Your task to perform on an android device: Go to wifi settings Image 0: 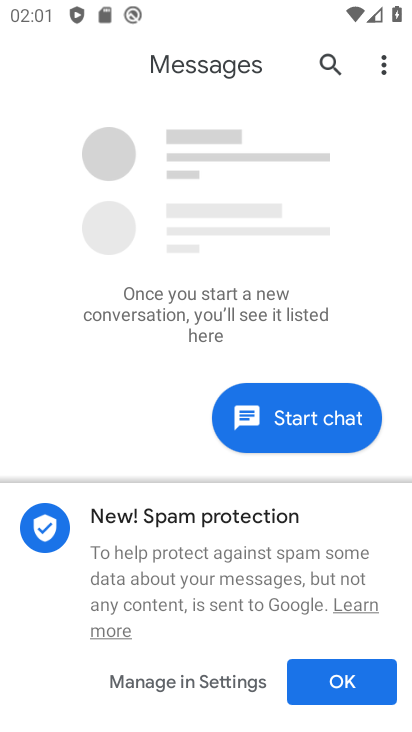
Step 0: press home button
Your task to perform on an android device: Go to wifi settings Image 1: 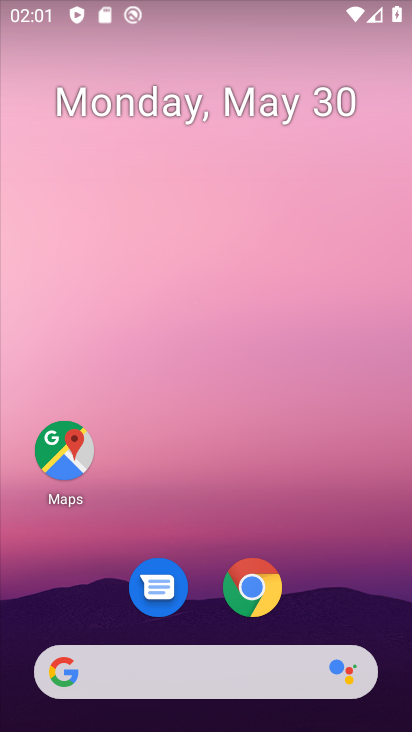
Step 1: drag from (130, 725) to (153, 59)
Your task to perform on an android device: Go to wifi settings Image 2: 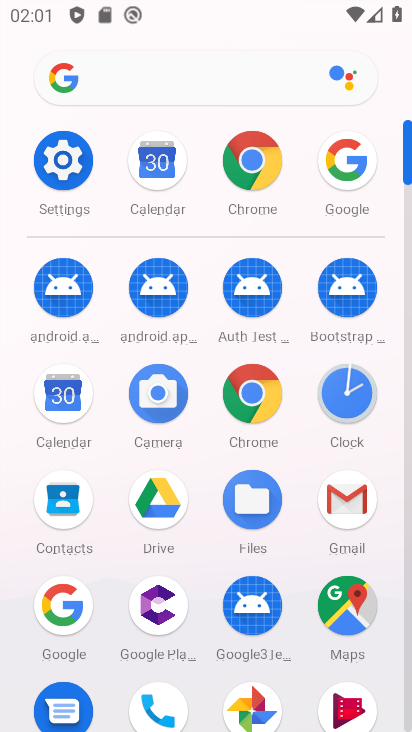
Step 2: click (54, 172)
Your task to perform on an android device: Go to wifi settings Image 3: 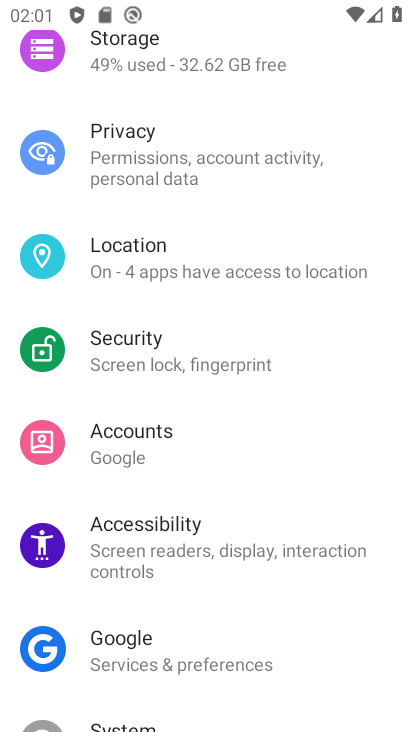
Step 3: drag from (206, 132) to (312, 660)
Your task to perform on an android device: Go to wifi settings Image 4: 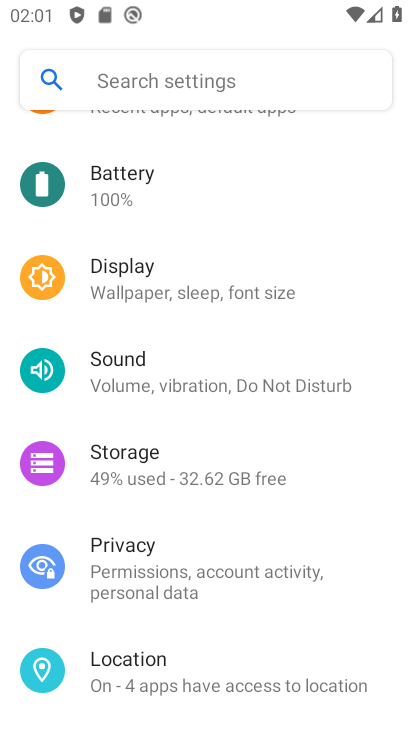
Step 4: drag from (239, 228) to (317, 609)
Your task to perform on an android device: Go to wifi settings Image 5: 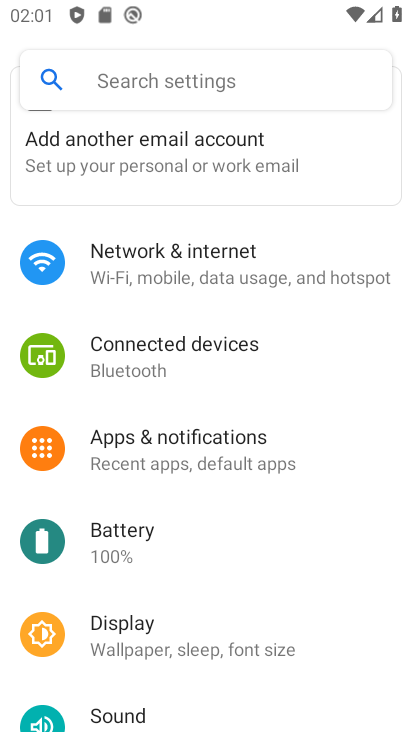
Step 5: click (232, 276)
Your task to perform on an android device: Go to wifi settings Image 6: 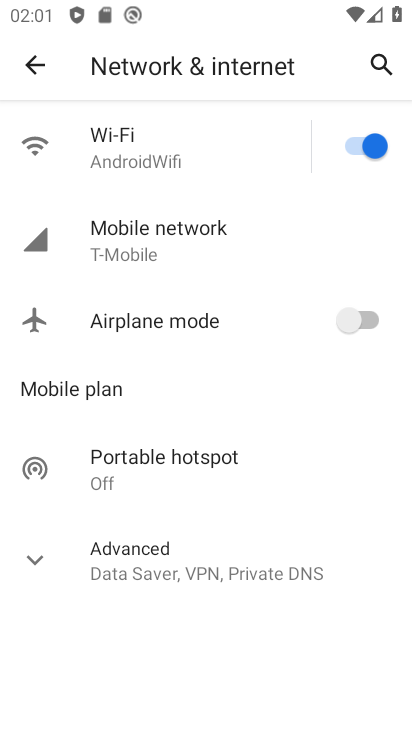
Step 6: click (150, 167)
Your task to perform on an android device: Go to wifi settings Image 7: 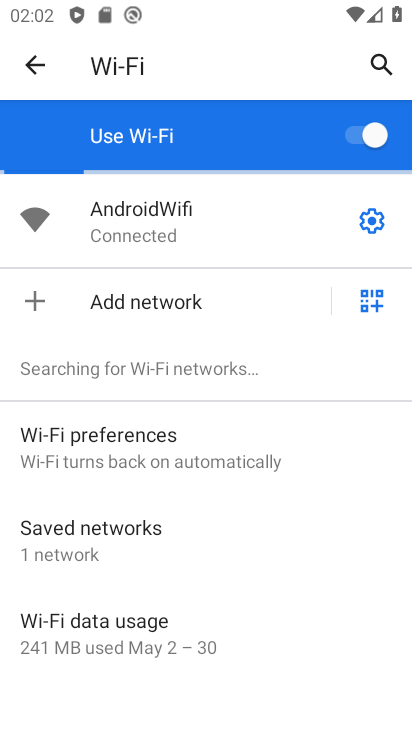
Step 7: task complete